Your task to perform on an android device: open a bookmark in the chrome app Image 0: 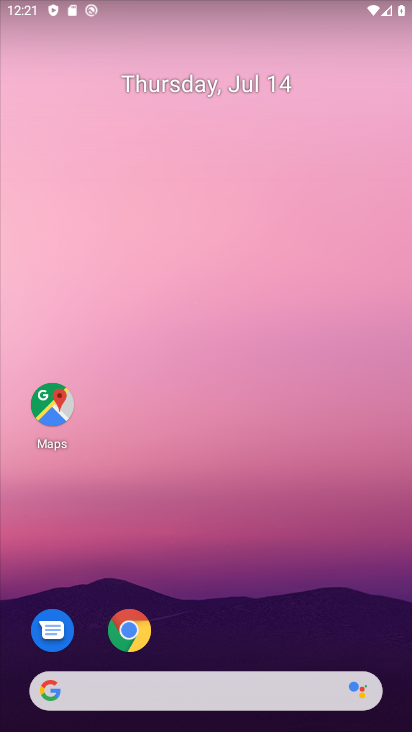
Step 0: click (137, 631)
Your task to perform on an android device: open a bookmark in the chrome app Image 1: 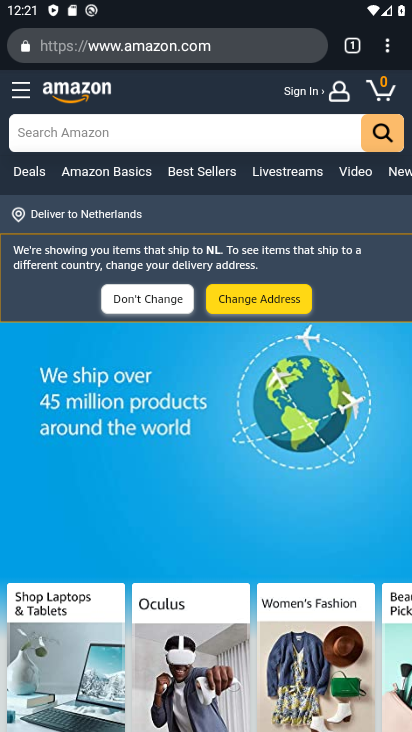
Step 1: click (384, 46)
Your task to perform on an android device: open a bookmark in the chrome app Image 2: 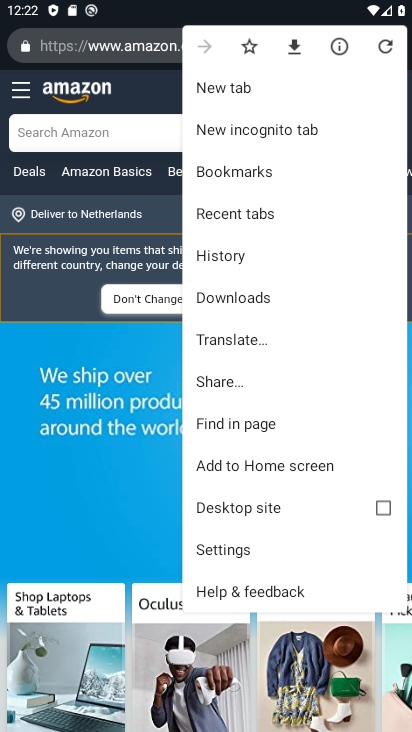
Step 2: click (260, 182)
Your task to perform on an android device: open a bookmark in the chrome app Image 3: 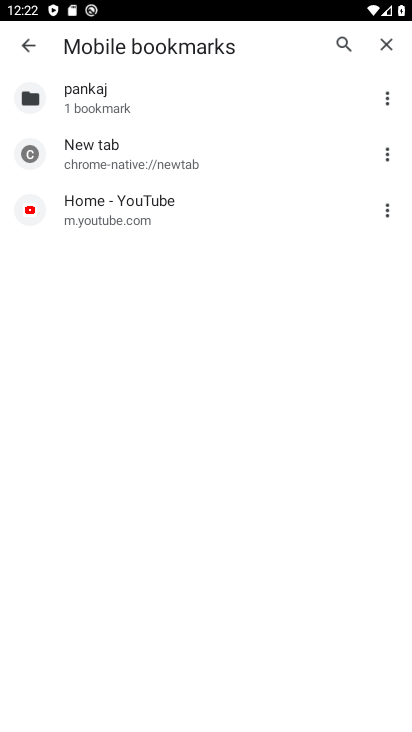
Step 3: click (206, 195)
Your task to perform on an android device: open a bookmark in the chrome app Image 4: 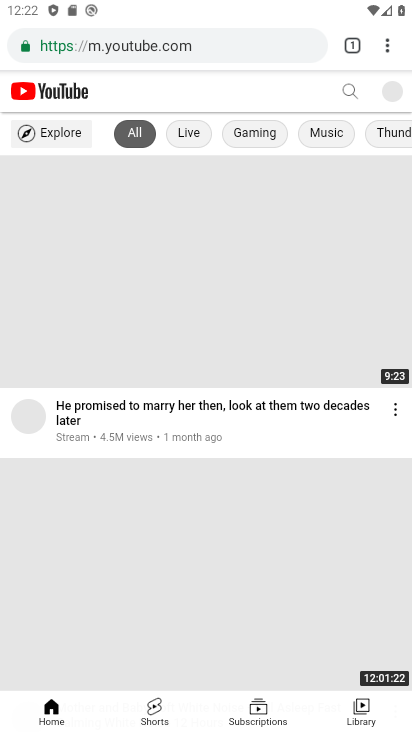
Step 4: task complete